Your task to perform on an android device: toggle sleep mode Image 0: 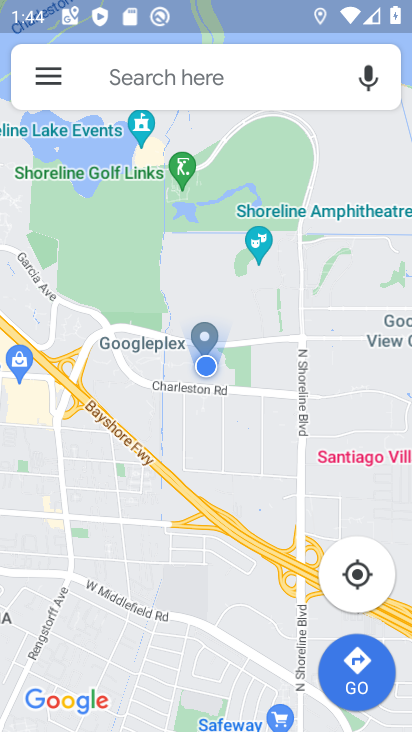
Step 0: press home button
Your task to perform on an android device: toggle sleep mode Image 1: 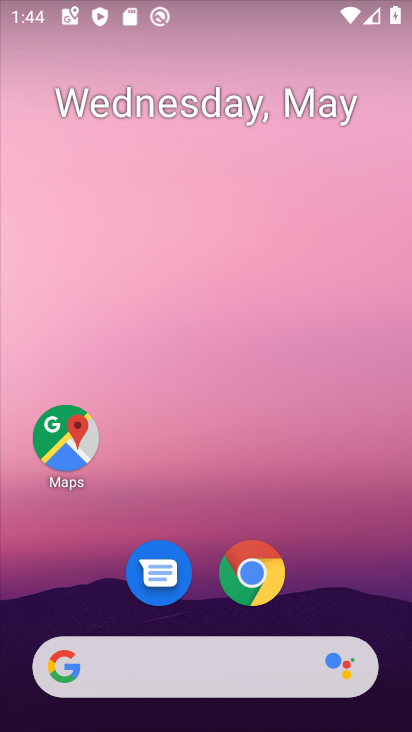
Step 1: drag from (313, 609) to (353, 21)
Your task to perform on an android device: toggle sleep mode Image 2: 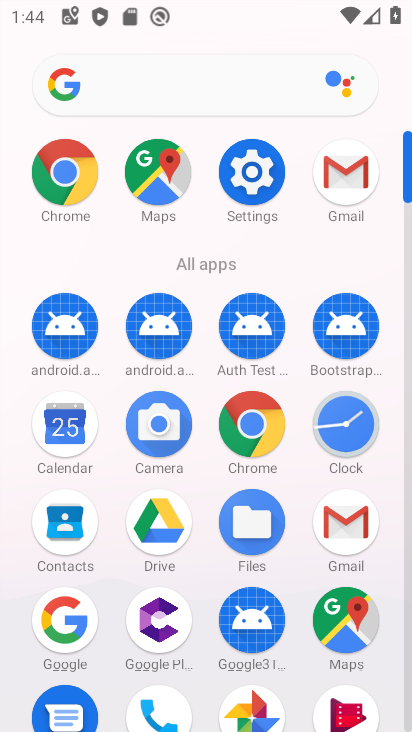
Step 2: click (232, 154)
Your task to perform on an android device: toggle sleep mode Image 3: 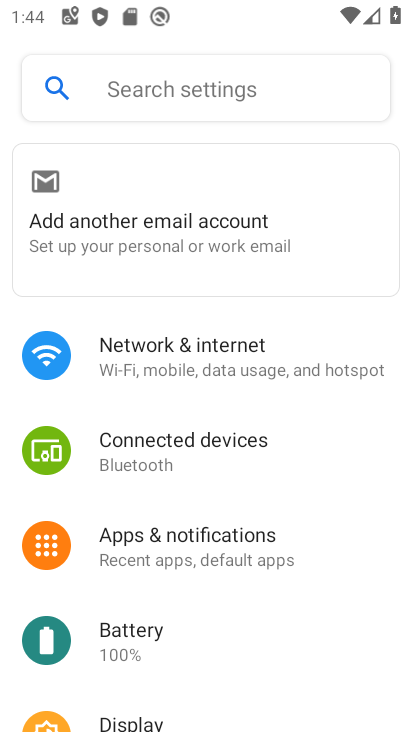
Step 3: drag from (116, 636) to (247, 208)
Your task to perform on an android device: toggle sleep mode Image 4: 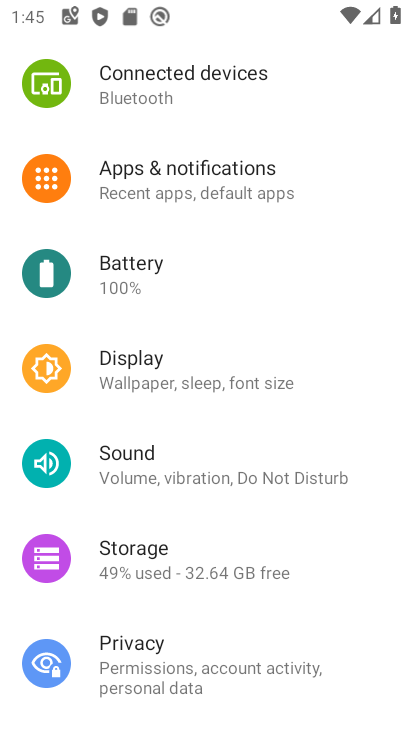
Step 4: click (152, 392)
Your task to perform on an android device: toggle sleep mode Image 5: 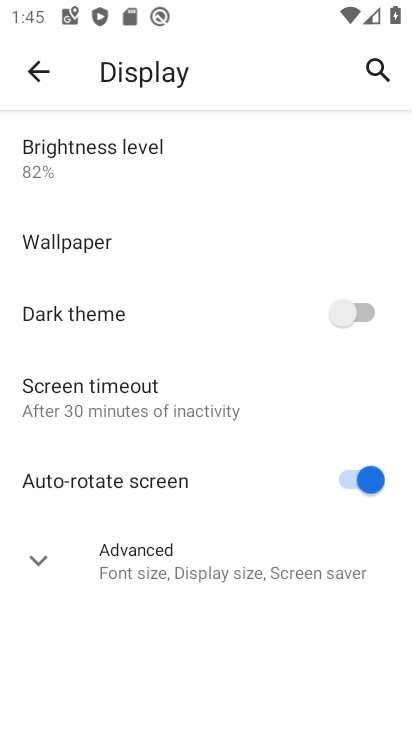
Step 5: click (134, 548)
Your task to perform on an android device: toggle sleep mode Image 6: 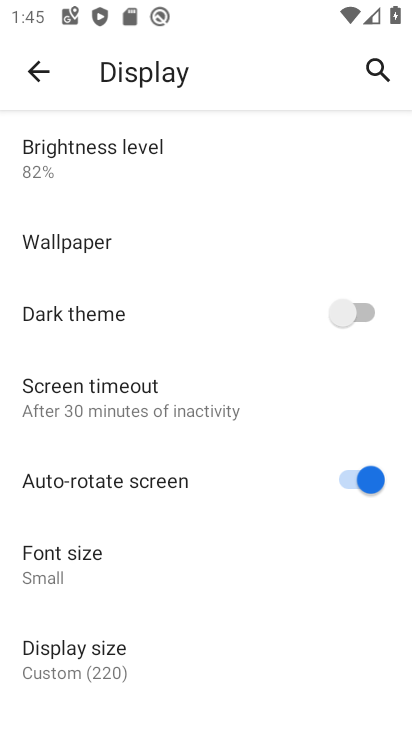
Step 6: task complete